Your task to perform on an android device: find photos in the google photos app Image 0: 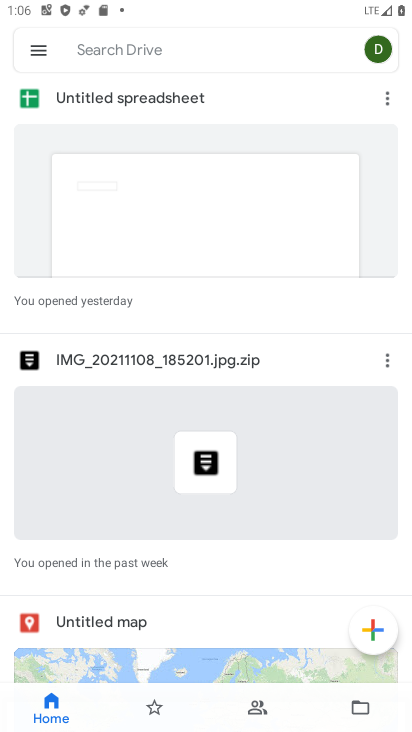
Step 0: press home button
Your task to perform on an android device: find photos in the google photos app Image 1: 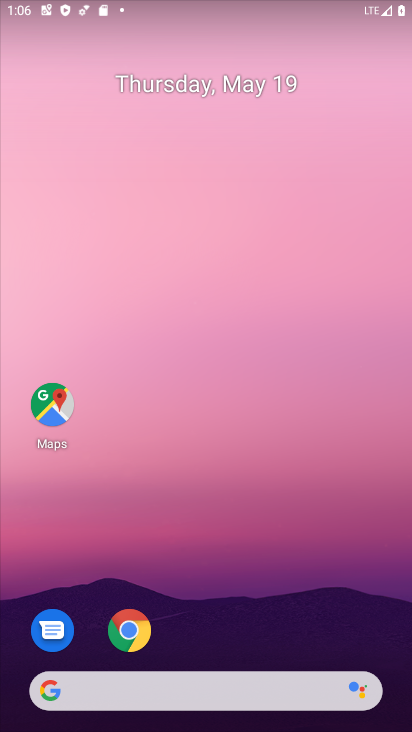
Step 1: drag from (196, 654) to (154, 35)
Your task to perform on an android device: find photos in the google photos app Image 2: 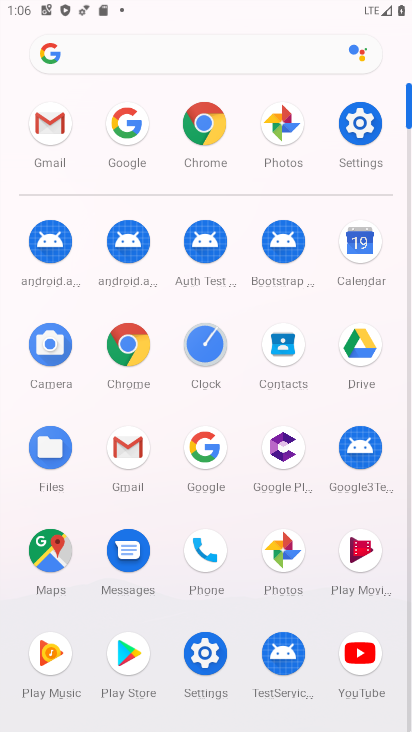
Step 2: click (275, 547)
Your task to perform on an android device: find photos in the google photos app Image 3: 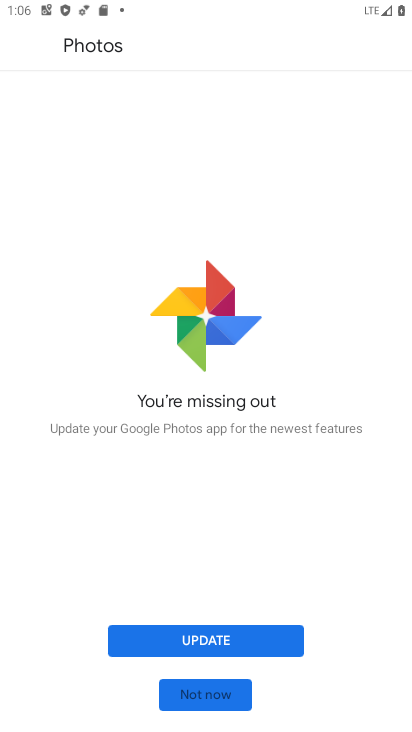
Step 3: click (198, 645)
Your task to perform on an android device: find photos in the google photos app Image 4: 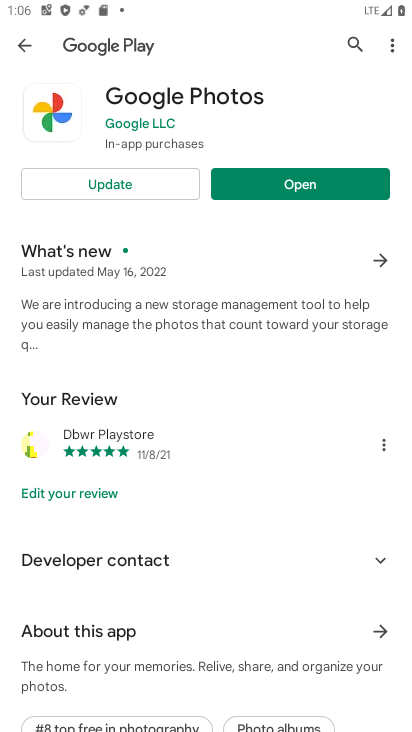
Step 4: click (298, 180)
Your task to perform on an android device: find photos in the google photos app Image 5: 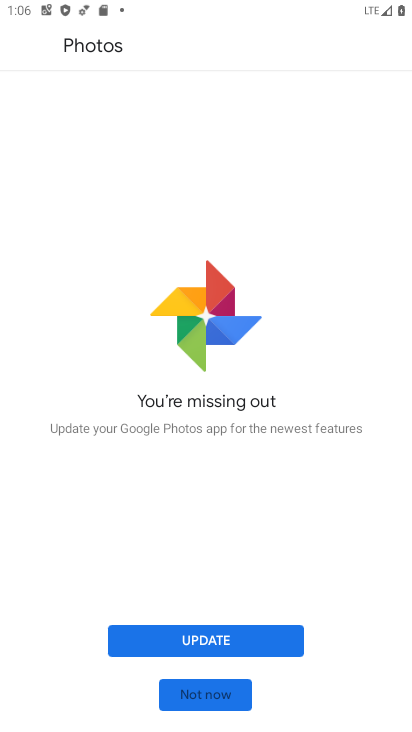
Step 5: click (208, 689)
Your task to perform on an android device: find photos in the google photos app Image 6: 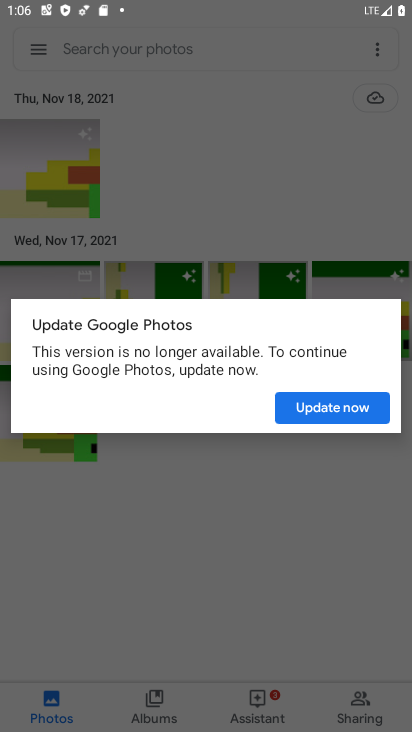
Step 6: click (303, 392)
Your task to perform on an android device: find photos in the google photos app Image 7: 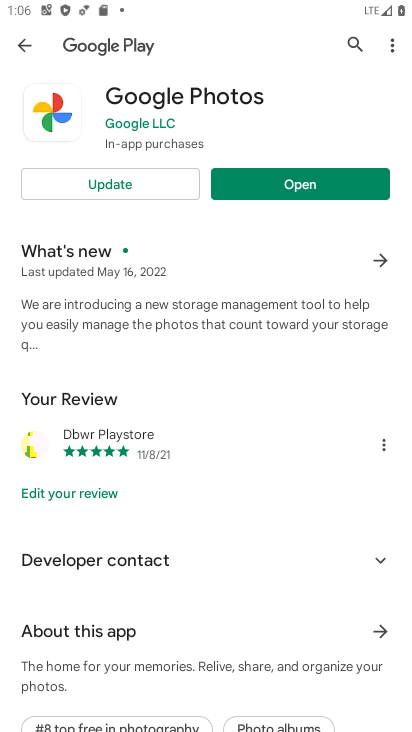
Step 7: click (243, 179)
Your task to perform on an android device: find photos in the google photos app Image 8: 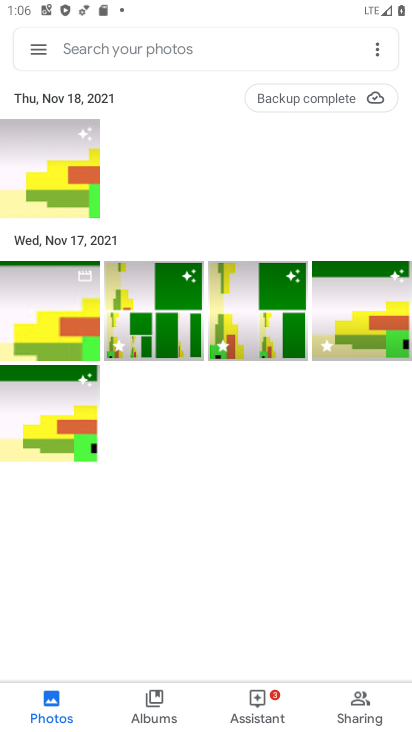
Step 8: task complete